Your task to perform on an android device: turn on notifications settings in the gmail app Image 0: 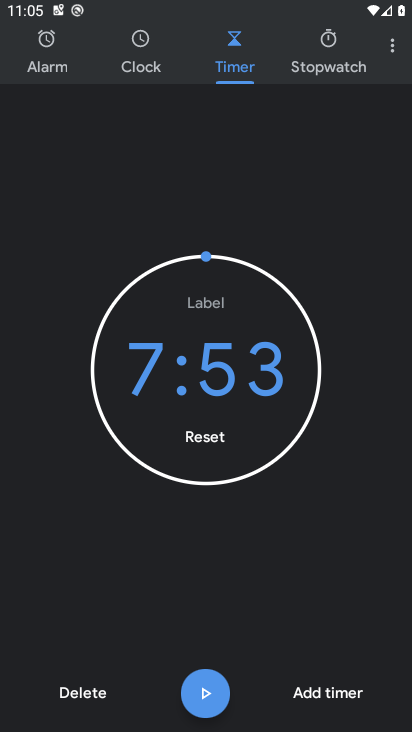
Step 0: press home button
Your task to perform on an android device: turn on notifications settings in the gmail app Image 1: 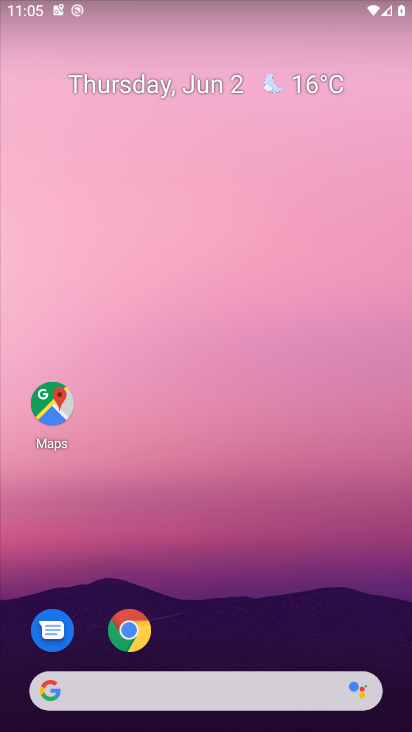
Step 1: drag from (230, 630) to (282, 23)
Your task to perform on an android device: turn on notifications settings in the gmail app Image 2: 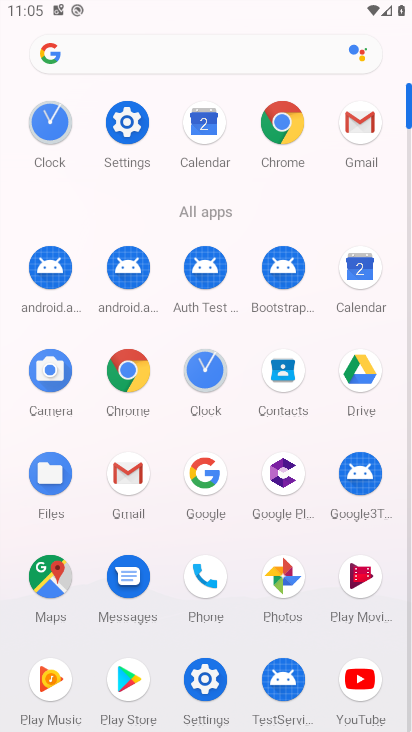
Step 2: click (129, 505)
Your task to perform on an android device: turn on notifications settings in the gmail app Image 3: 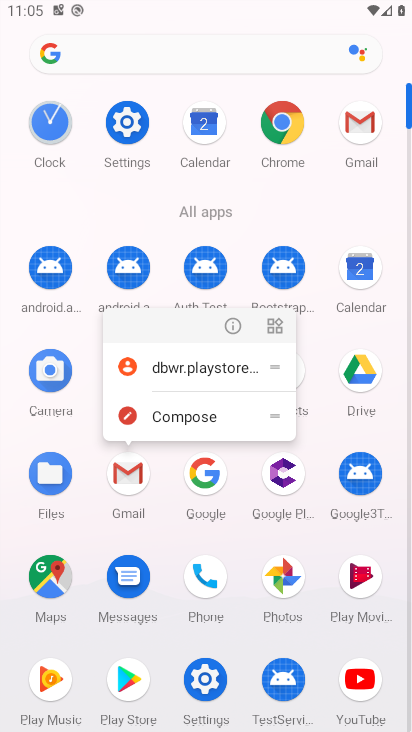
Step 3: click (119, 479)
Your task to perform on an android device: turn on notifications settings in the gmail app Image 4: 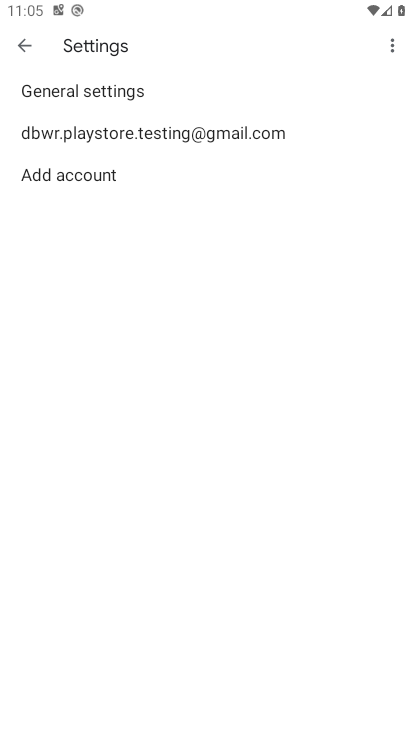
Step 4: click (122, 96)
Your task to perform on an android device: turn on notifications settings in the gmail app Image 5: 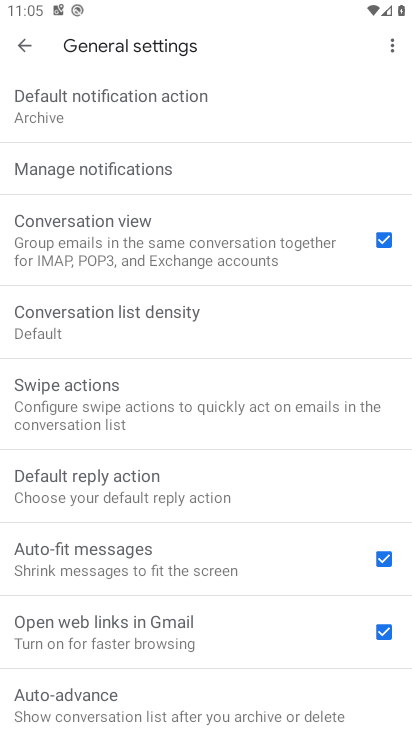
Step 5: click (123, 168)
Your task to perform on an android device: turn on notifications settings in the gmail app Image 6: 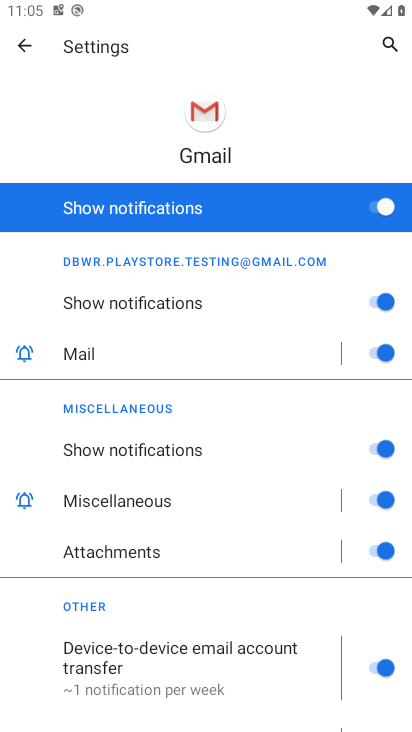
Step 6: task complete